Your task to perform on an android device: Show me productivity apps on the Play Store Image 0: 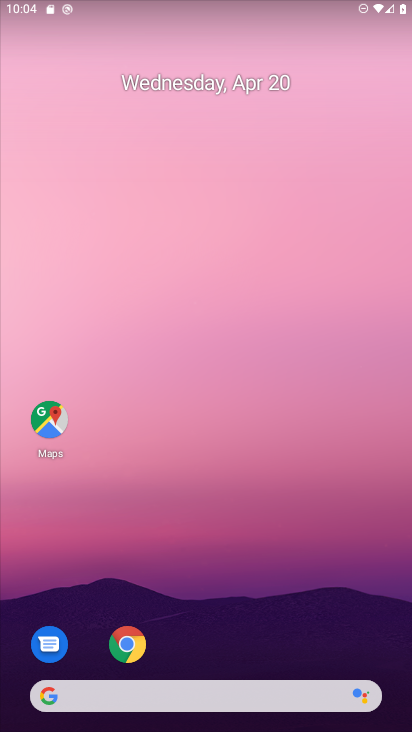
Step 0: drag from (296, 609) to (308, 32)
Your task to perform on an android device: Show me productivity apps on the Play Store Image 1: 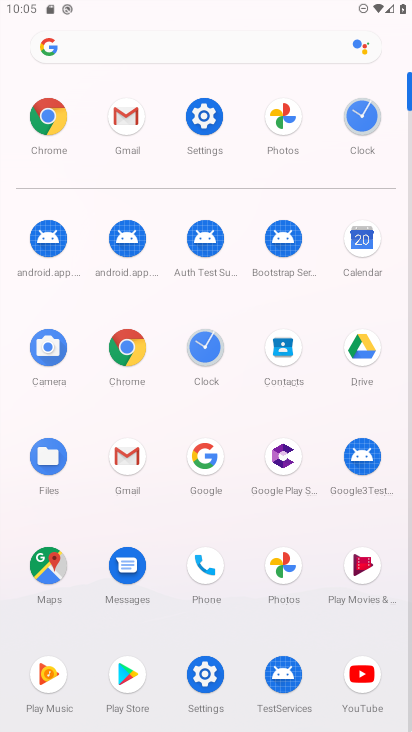
Step 1: click (130, 678)
Your task to perform on an android device: Show me productivity apps on the Play Store Image 2: 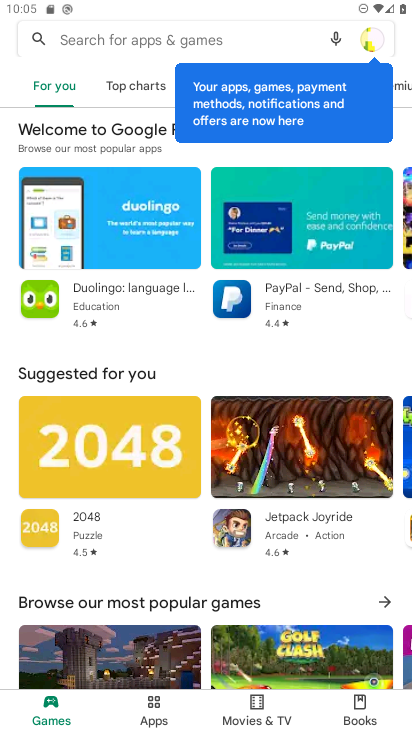
Step 2: click (159, 701)
Your task to perform on an android device: Show me productivity apps on the Play Store Image 3: 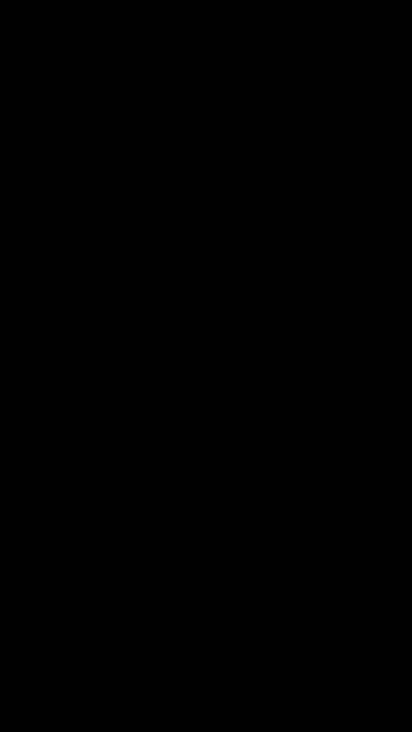
Step 3: task complete